Your task to perform on an android device: delete browsing data in the chrome app Image 0: 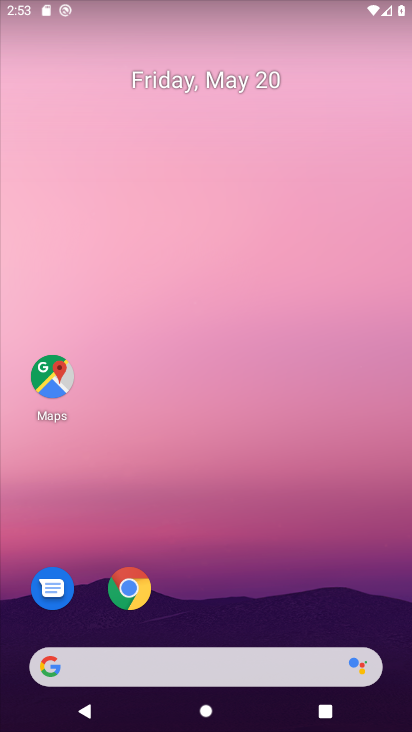
Step 0: click (125, 591)
Your task to perform on an android device: delete browsing data in the chrome app Image 1: 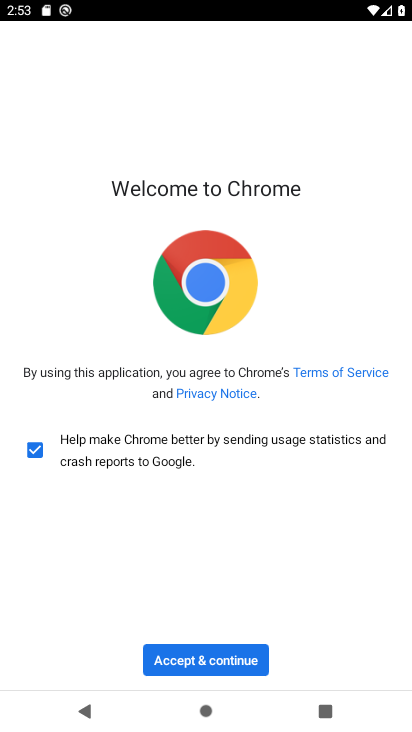
Step 1: click (210, 675)
Your task to perform on an android device: delete browsing data in the chrome app Image 2: 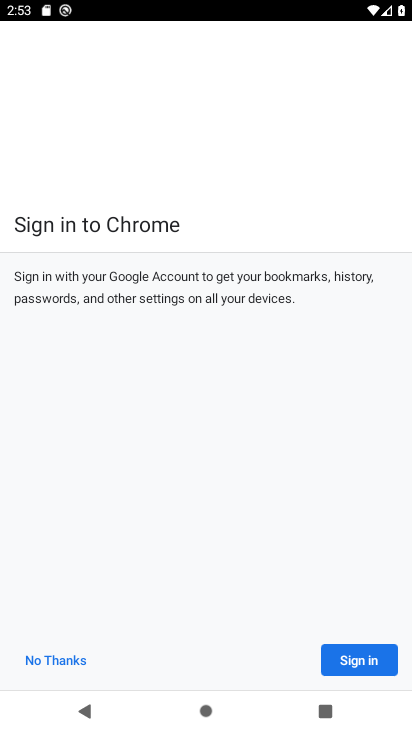
Step 2: click (214, 665)
Your task to perform on an android device: delete browsing data in the chrome app Image 3: 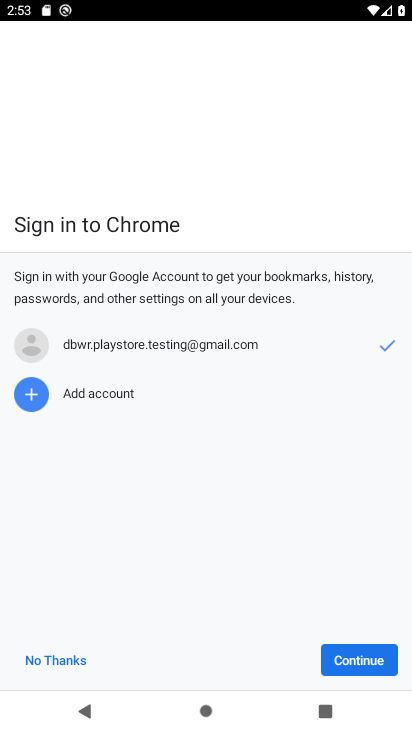
Step 3: click (335, 661)
Your task to perform on an android device: delete browsing data in the chrome app Image 4: 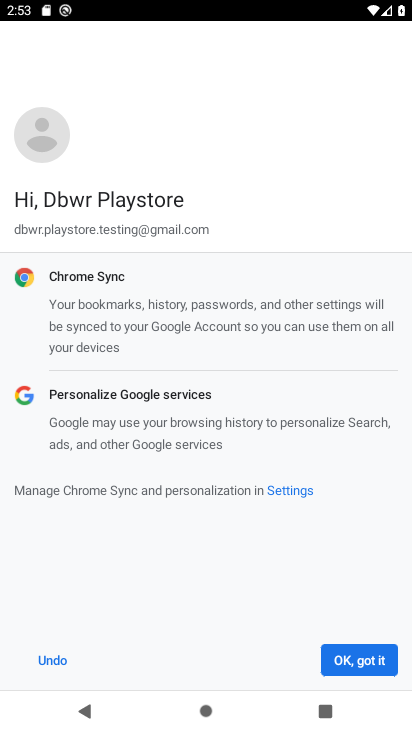
Step 4: click (342, 645)
Your task to perform on an android device: delete browsing data in the chrome app Image 5: 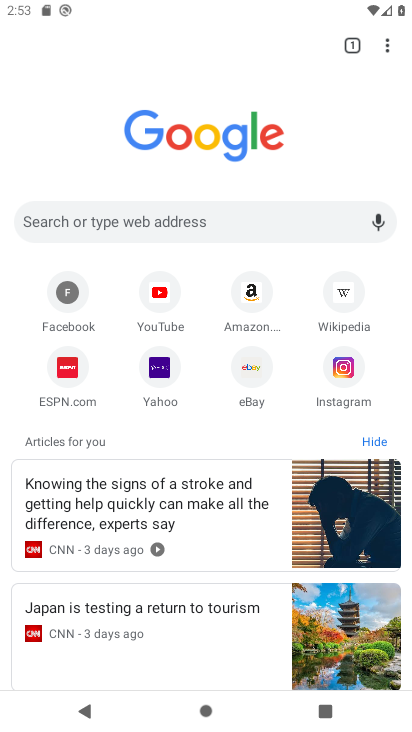
Step 5: task complete